Your task to perform on an android device: open app "Fetch Rewards" Image 0: 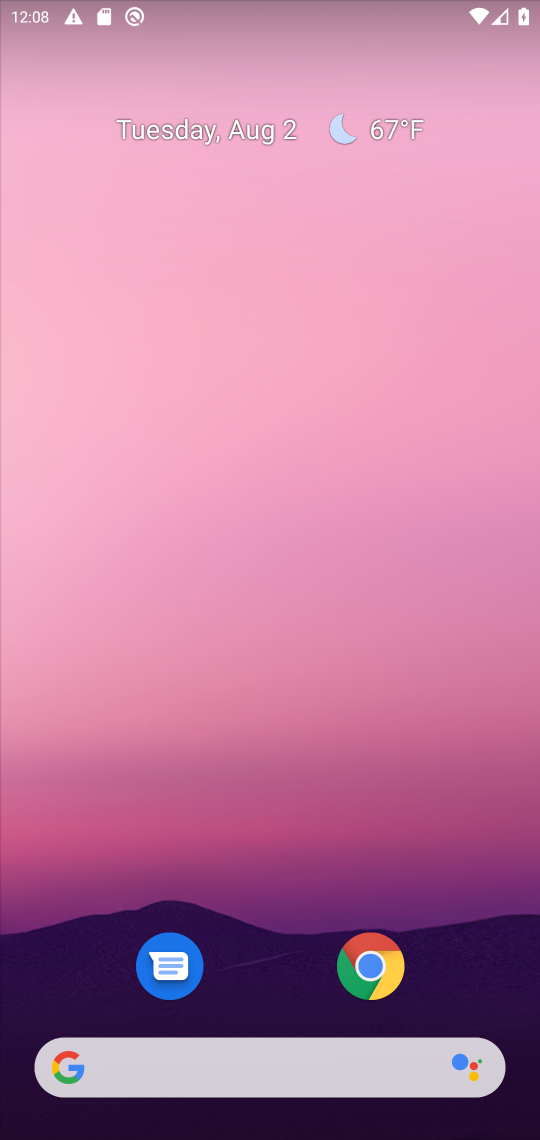
Step 0: press home button
Your task to perform on an android device: open app "Fetch Rewards" Image 1: 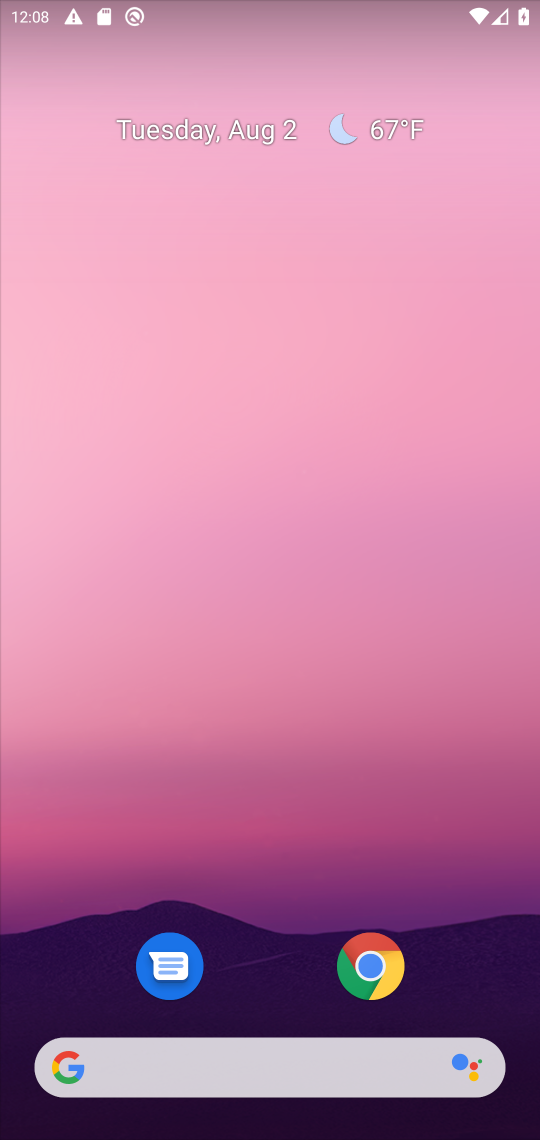
Step 1: drag from (474, 949) to (461, 117)
Your task to perform on an android device: open app "Fetch Rewards" Image 2: 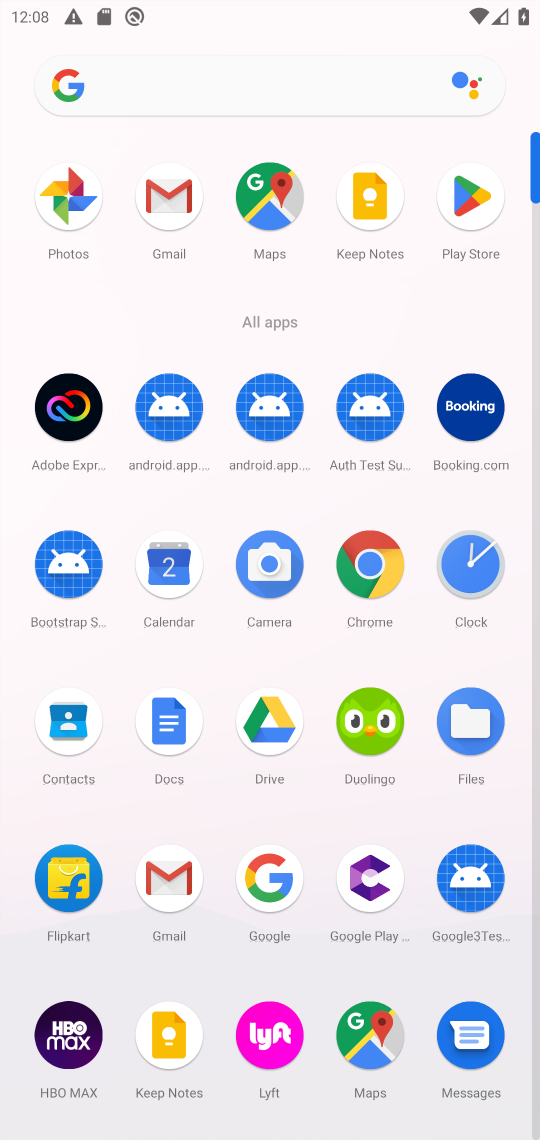
Step 2: click (474, 206)
Your task to perform on an android device: open app "Fetch Rewards" Image 3: 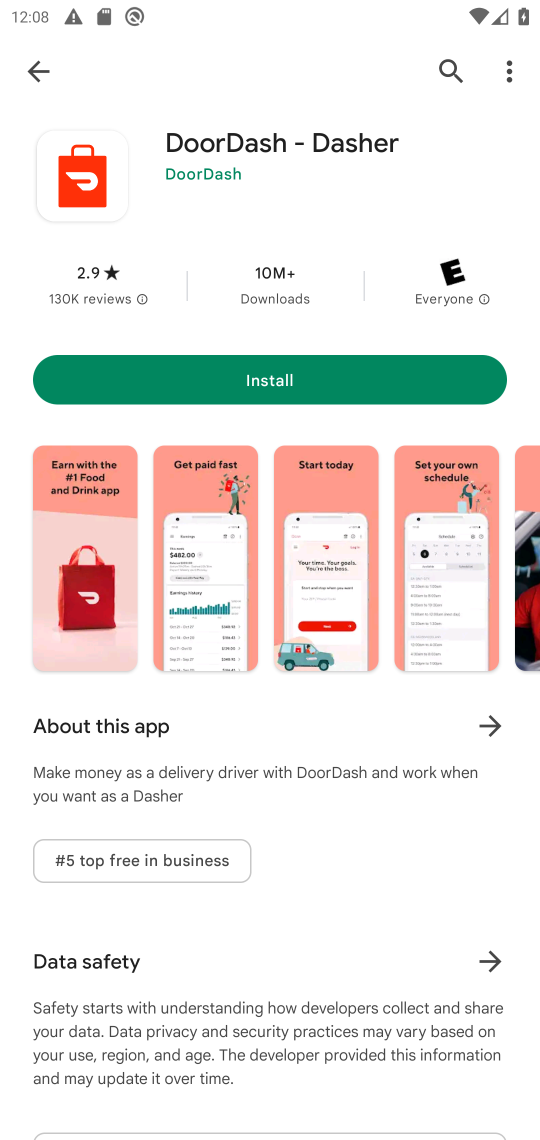
Step 3: click (451, 65)
Your task to perform on an android device: open app "Fetch Rewards" Image 4: 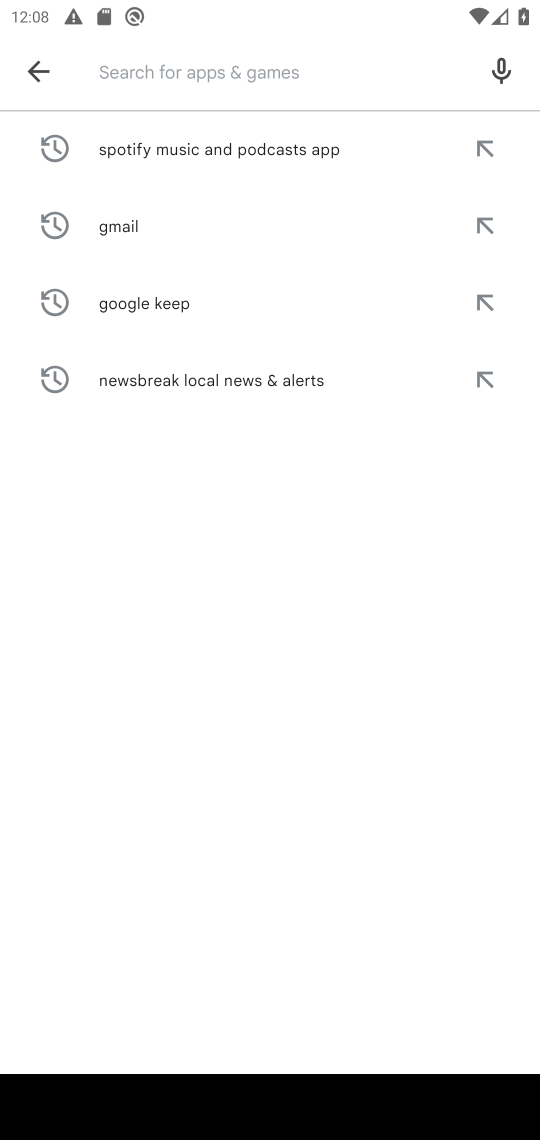
Step 4: type "fetch rewards"
Your task to perform on an android device: open app "Fetch Rewards" Image 5: 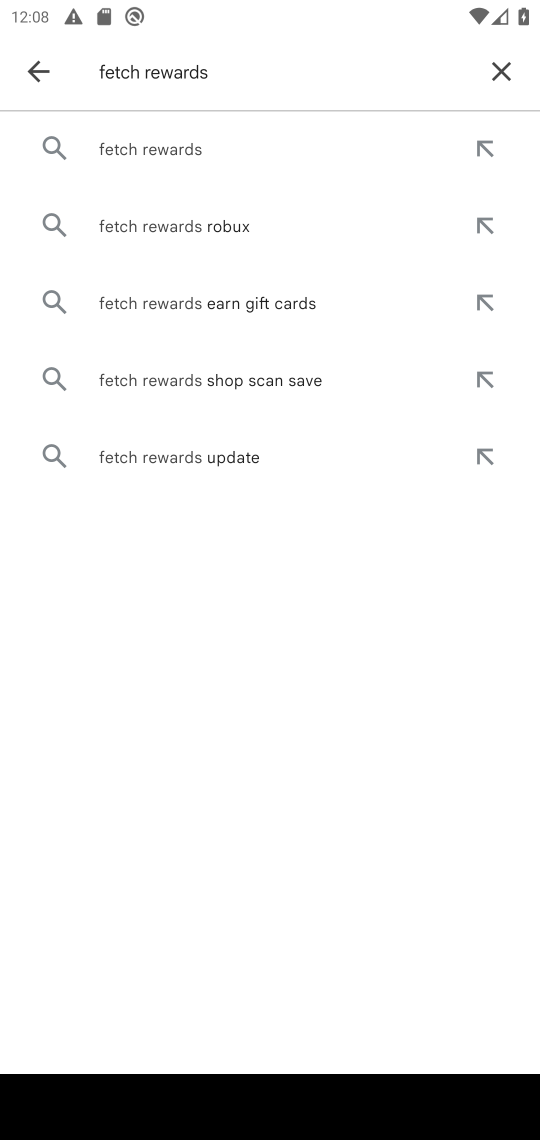
Step 5: click (225, 142)
Your task to perform on an android device: open app "Fetch Rewards" Image 6: 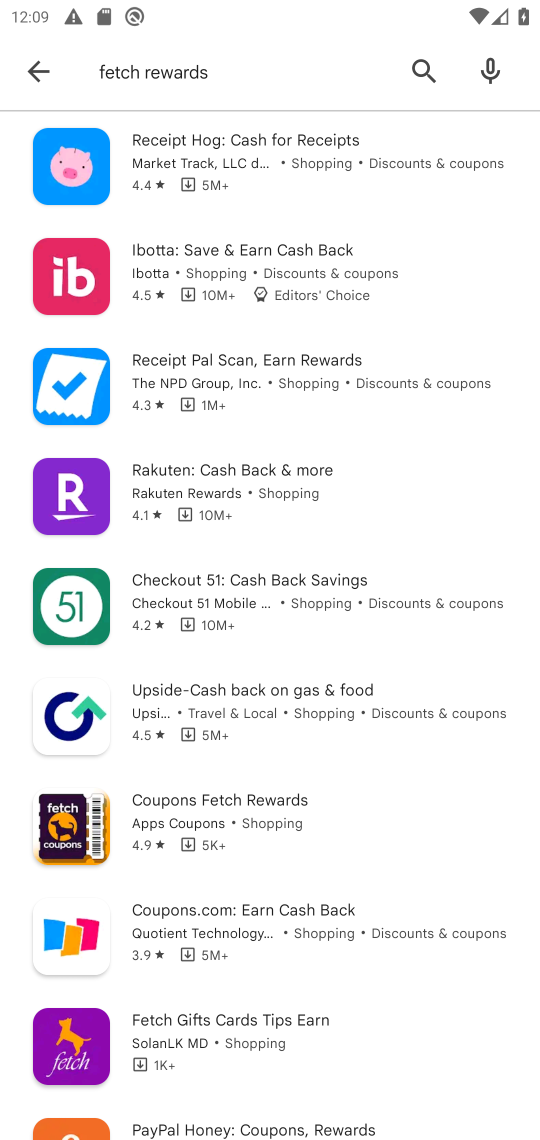
Step 6: task complete